Your task to perform on an android device: allow cookies in the chrome app Image 0: 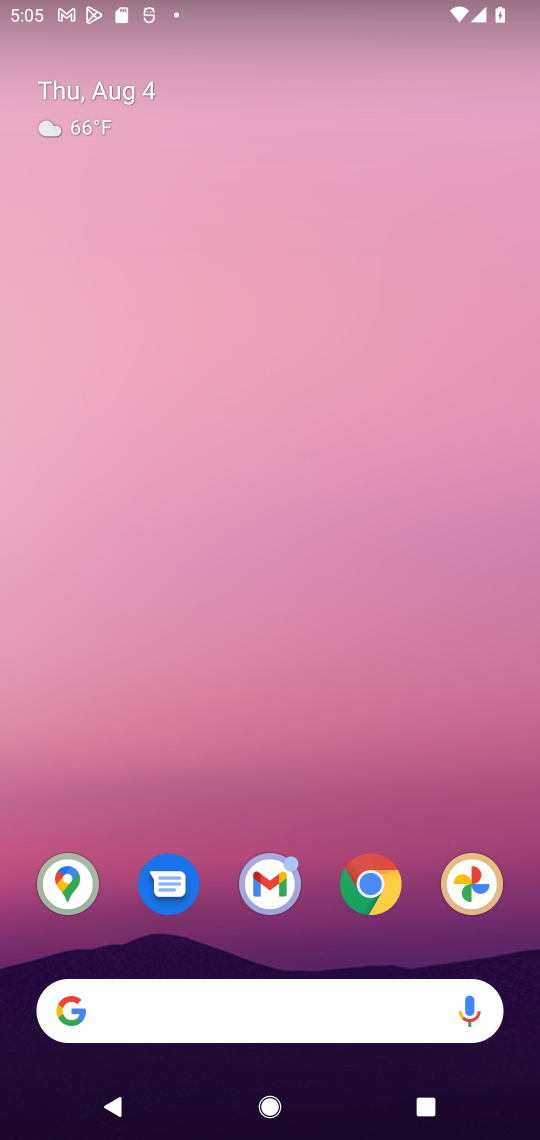
Step 0: click (386, 915)
Your task to perform on an android device: allow cookies in the chrome app Image 1: 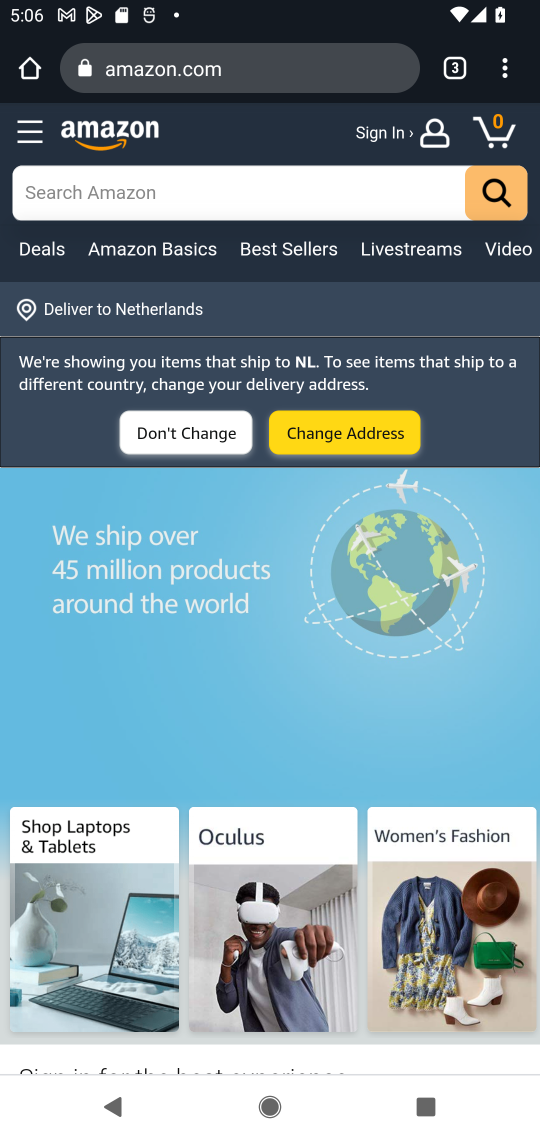
Step 1: click (500, 82)
Your task to perform on an android device: allow cookies in the chrome app Image 2: 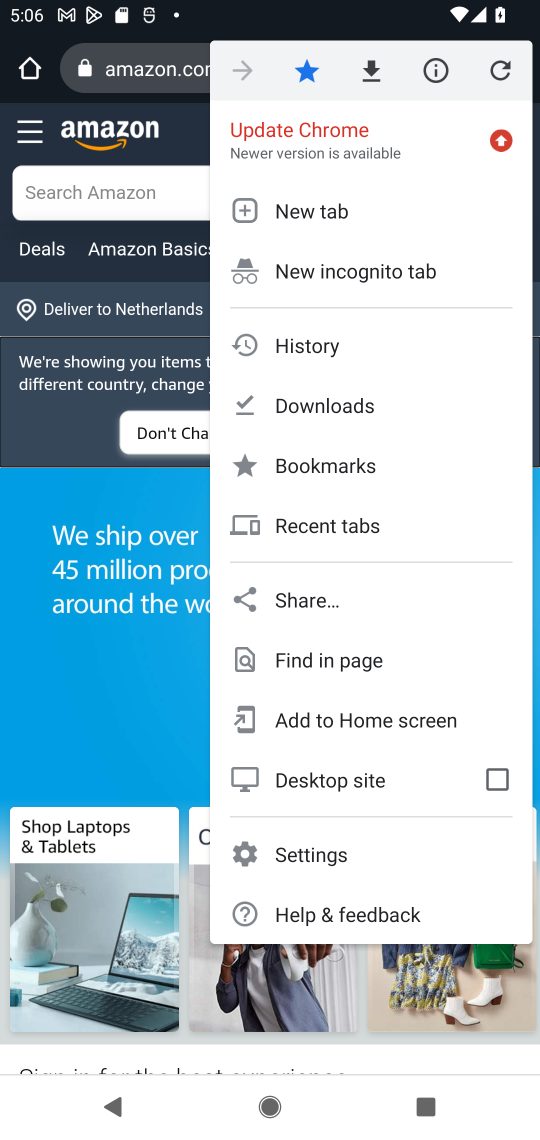
Step 2: click (337, 834)
Your task to perform on an android device: allow cookies in the chrome app Image 3: 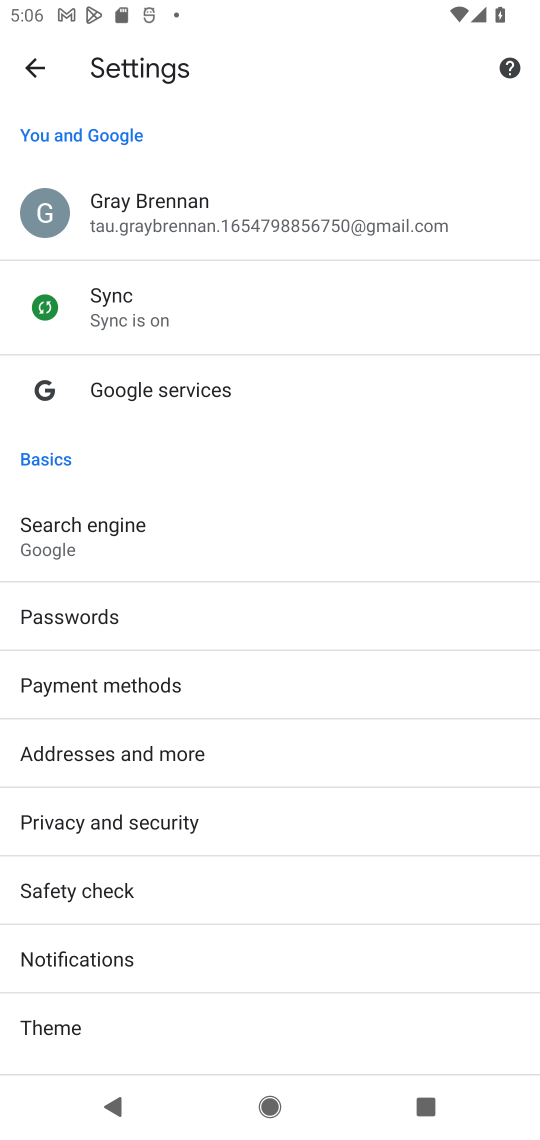
Step 3: task complete